Your task to perform on an android device: turn on javascript in the chrome app Image 0: 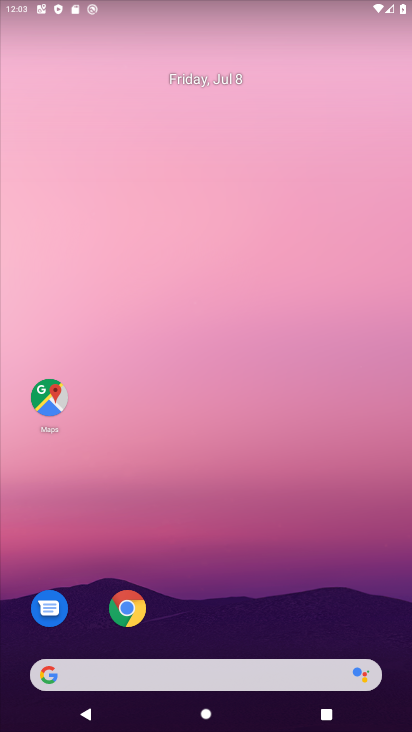
Step 0: click (137, 612)
Your task to perform on an android device: turn on javascript in the chrome app Image 1: 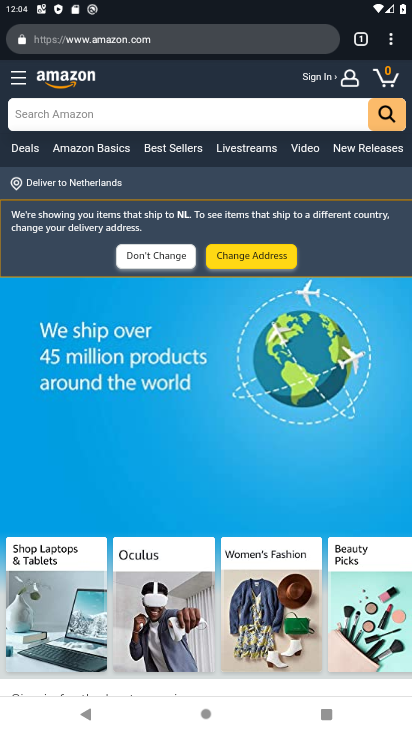
Step 1: click (391, 34)
Your task to perform on an android device: turn on javascript in the chrome app Image 2: 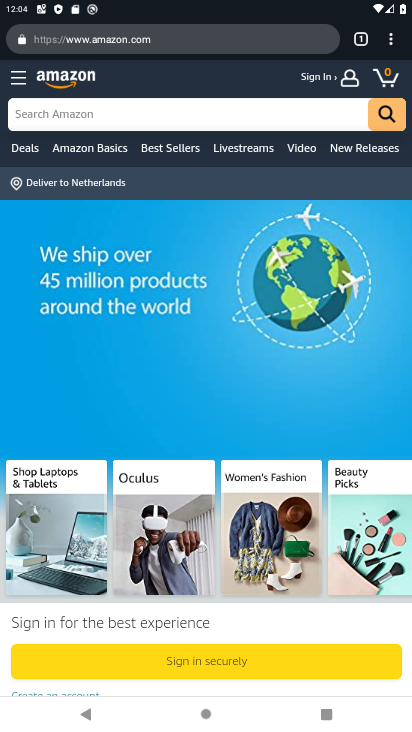
Step 2: click (391, 39)
Your task to perform on an android device: turn on javascript in the chrome app Image 3: 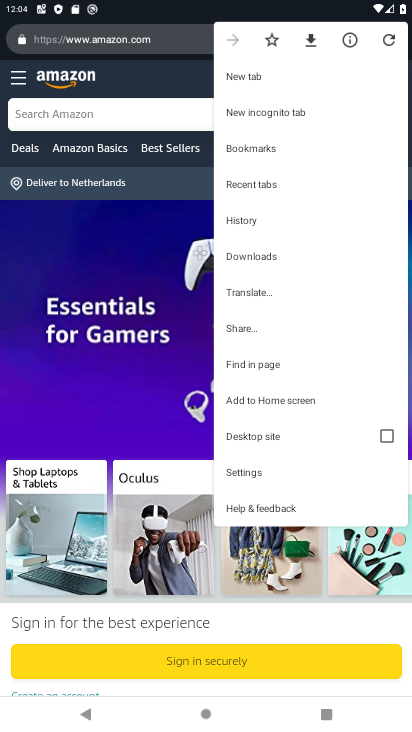
Step 3: click (241, 479)
Your task to perform on an android device: turn on javascript in the chrome app Image 4: 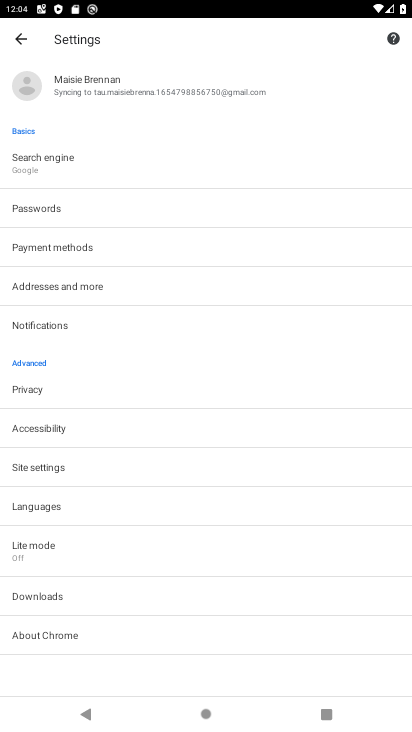
Step 4: click (59, 466)
Your task to perform on an android device: turn on javascript in the chrome app Image 5: 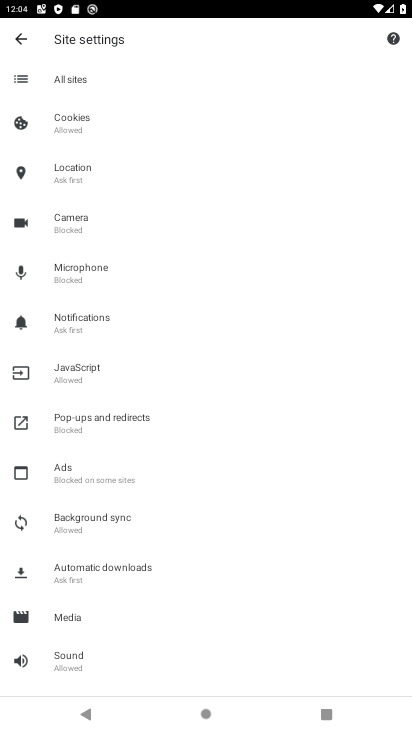
Step 5: click (71, 362)
Your task to perform on an android device: turn on javascript in the chrome app Image 6: 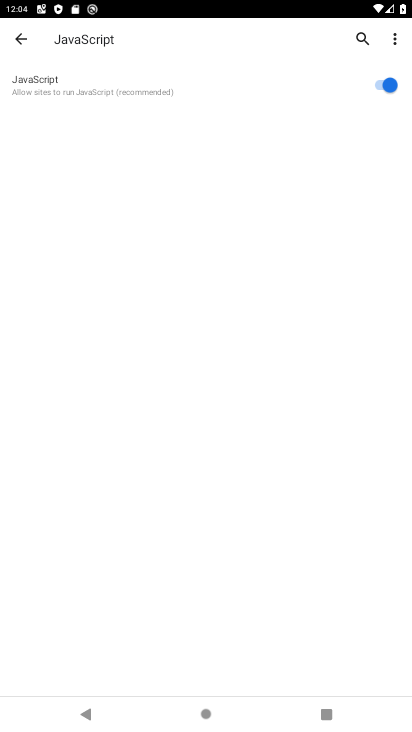
Step 6: task complete